Your task to perform on an android device: change the clock display to analog Image 0: 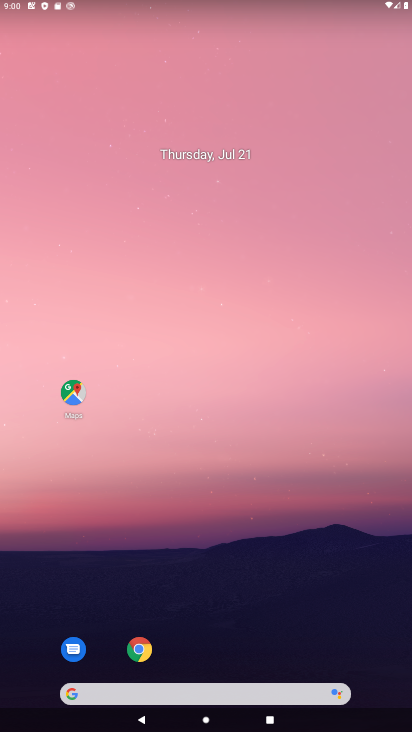
Step 0: drag from (237, 629) to (202, 59)
Your task to perform on an android device: change the clock display to analog Image 1: 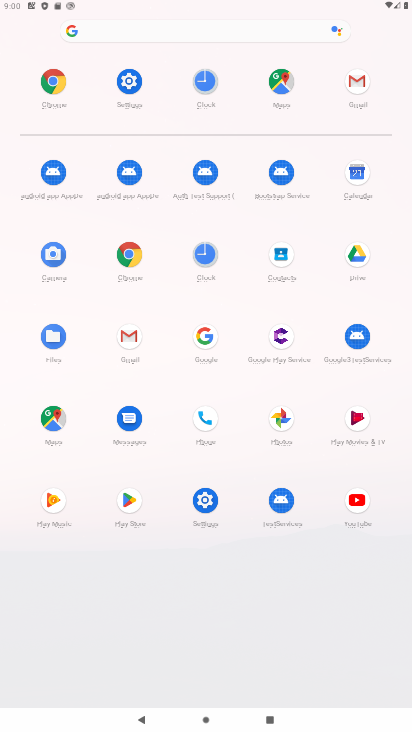
Step 1: click (195, 262)
Your task to perform on an android device: change the clock display to analog Image 2: 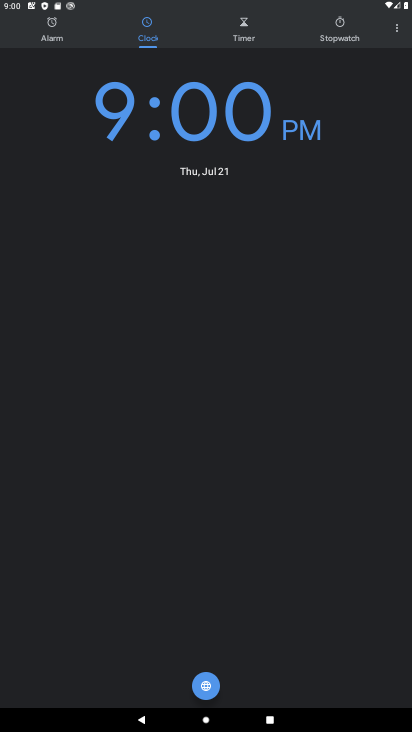
Step 2: click (402, 28)
Your task to perform on an android device: change the clock display to analog Image 3: 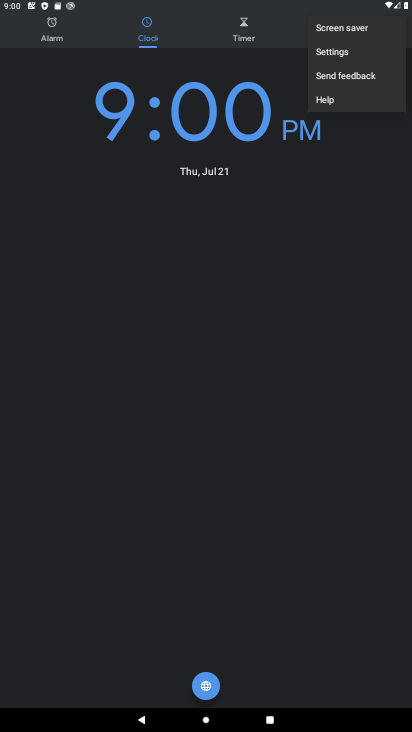
Step 3: click (346, 59)
Your task to perform on an android device: change the clock display to analog Image 4: 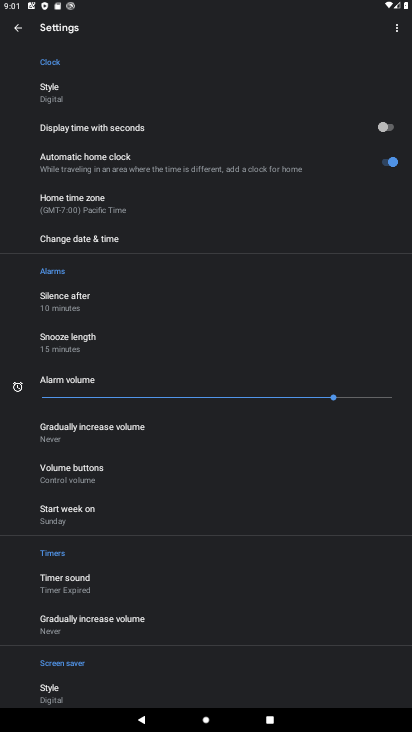
Step 4: click (65, 99)
Your task to perform on an android device: change the clock display to analog Image 5: 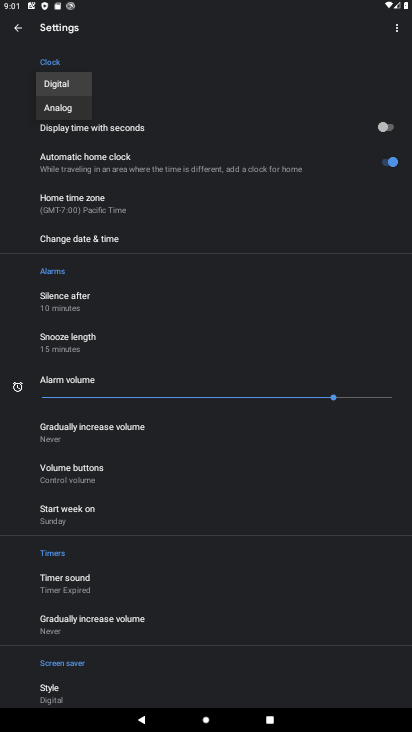
Step 5: click (75, 111)
Your task to perform on an android device: change the clock display to analog Image 6: 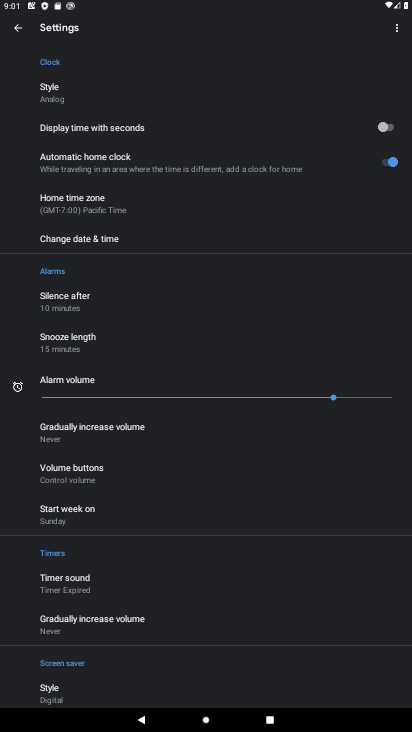
Step 6: task complete